Your task to perform on an android device: turn notification dots off Image 0: 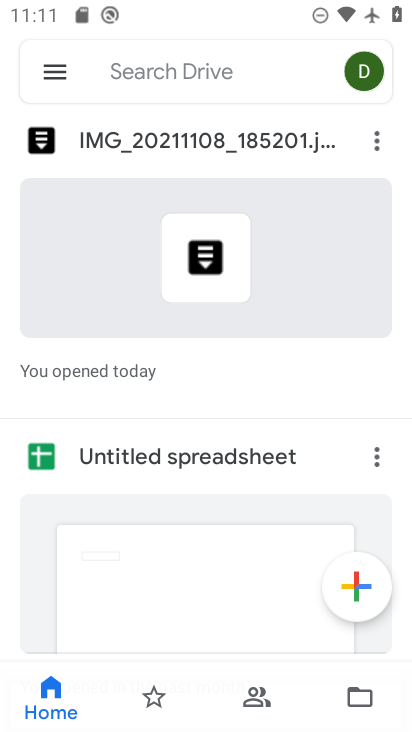
Step 0: press back button
Your task to perform on an android device: turn notification dots off Image 1: 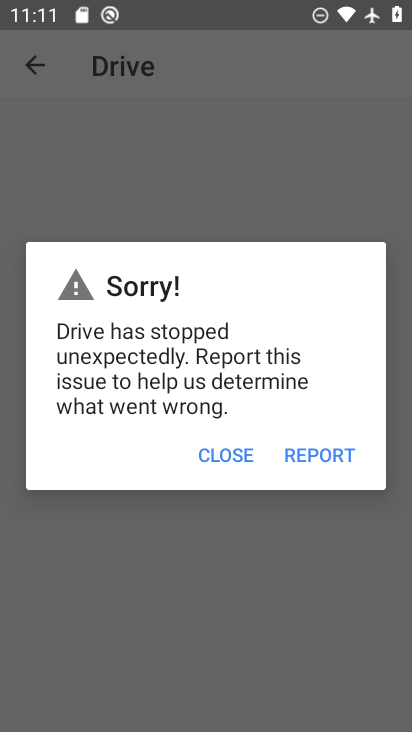
Step 1: press home button
Your task to perform on an android device: turn notification dots off Image 2: 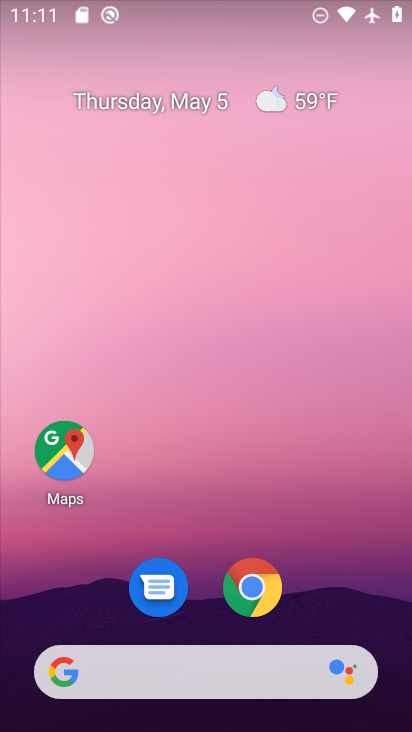
Step 2: drag from (380, 614) to (23, 358)
Your task to perform on an android device: turn notification dots off Image 3: 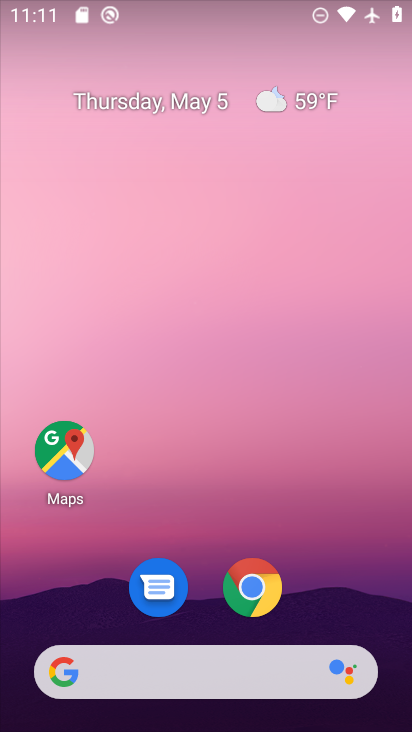
Step 3: drag from (29, 696) to (22, 52)
Your task to perform on an android device: turn notification dots off Image 4: 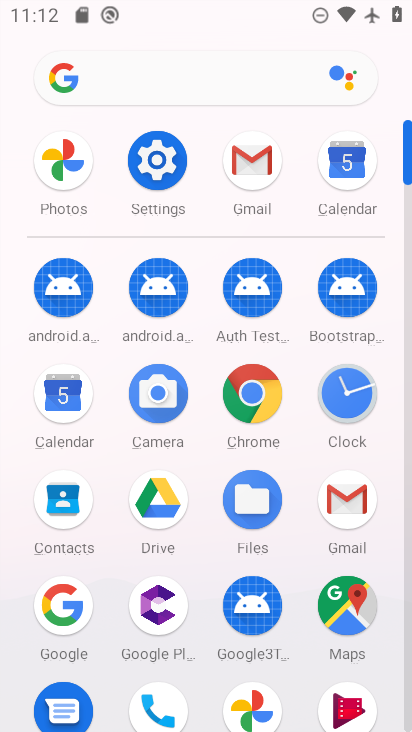
Step 4: click (155, 153)
Your task to perform on an android device: turn notification dots off Image 5: 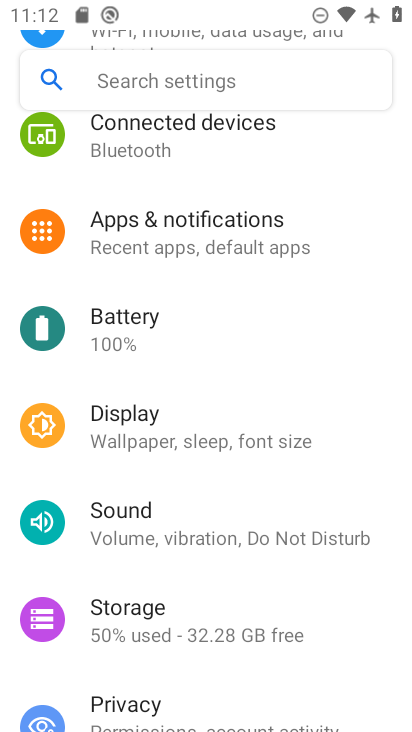
Step 5: drag from (201, 149) to (233, 376)
Your task to perform on an android device: turn notification dots off Image 6: 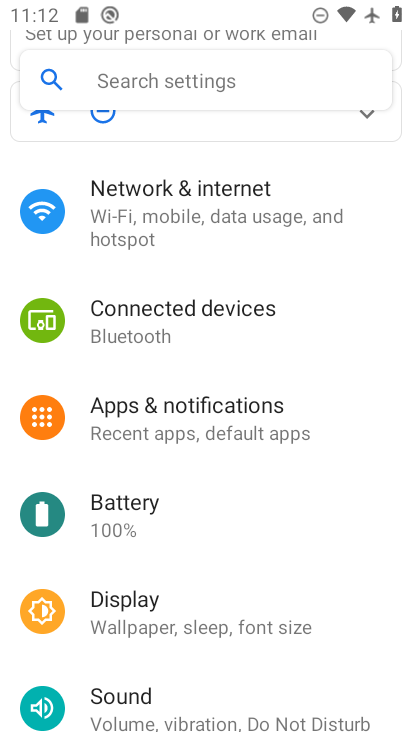
Step 6: click (227, 406)
Your task to perform on an android device: turn notification dots off Image 7: 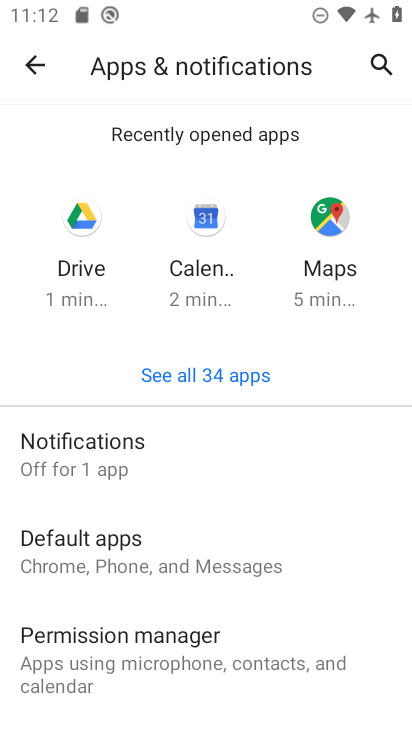
Step 7: click (136, 442)
Your task to perform on an android device: turn notification dots off Image 8: 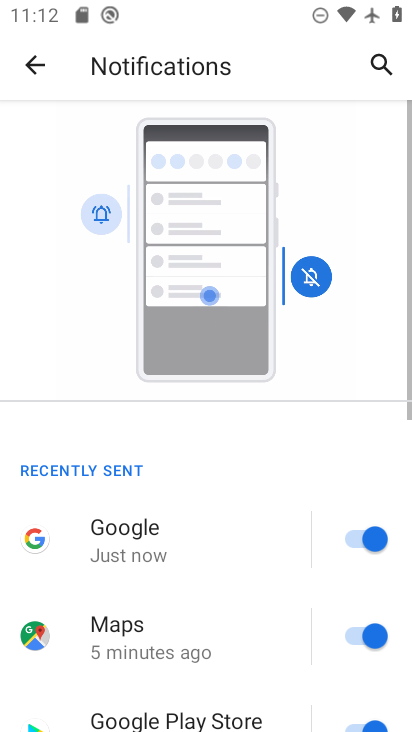
Step 8: drag from (231, 624) to (238, 88)
Your task to perform on an android device: turn notification dots off Image 9: 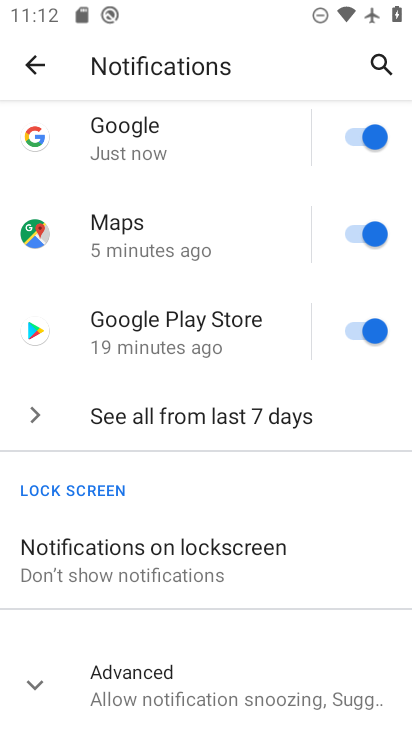
Step 9: drag from (162, 659) to (200, 346)
Your task to perform on an android device: turn notification dots off Image 10: 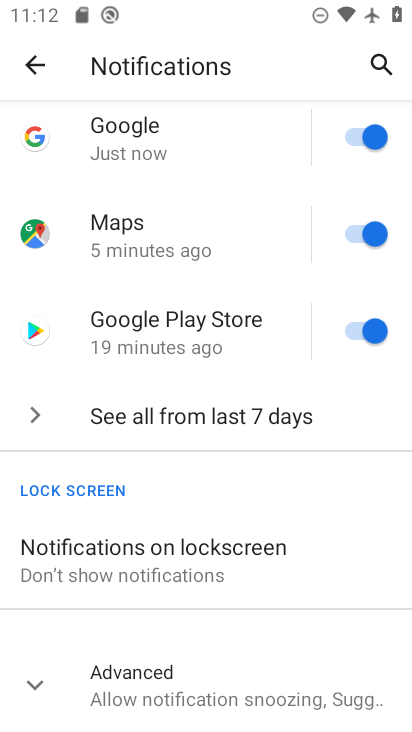
Step 10: click (47, 671)
Your task to perform on an android device: turn notification dots off Image 11: 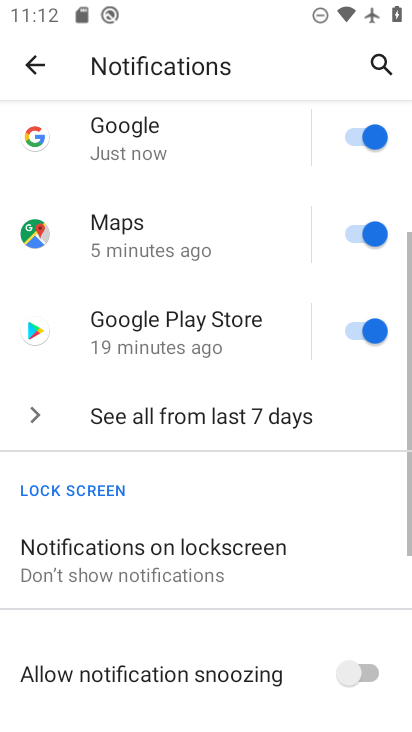
Step 11: task complete